Your task to perform on an android device: turn off translation in the chrome app Image 0: 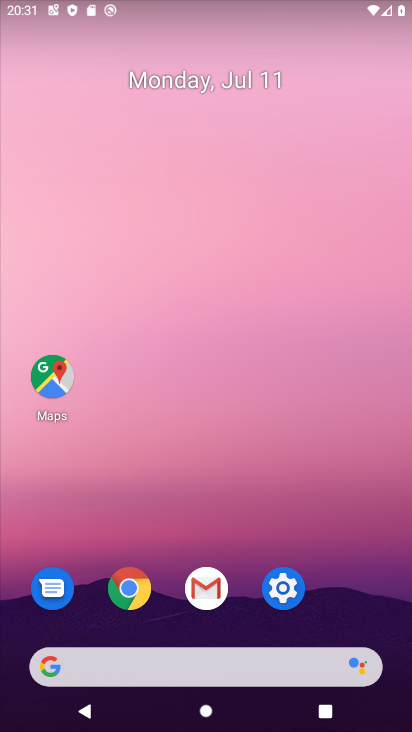
Step 0: drag from (279, 673) to (160, 173)
Your task to perform on an android device: turn off translation in the chrome app Image 1: 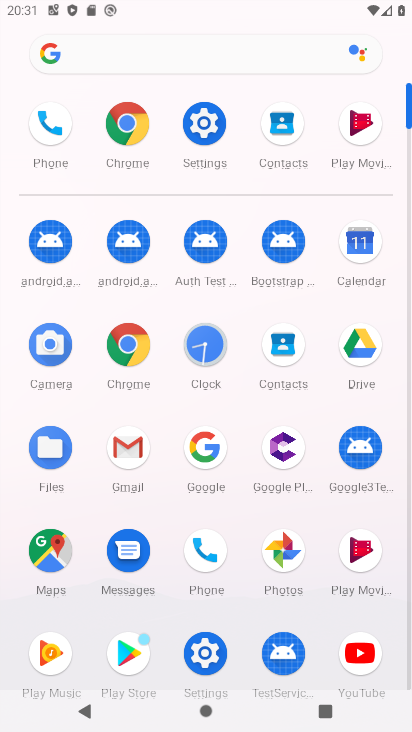
Step 1: click (140, 347)
Your task to perform on an android device: turn off translation in the chrome app Image 2: 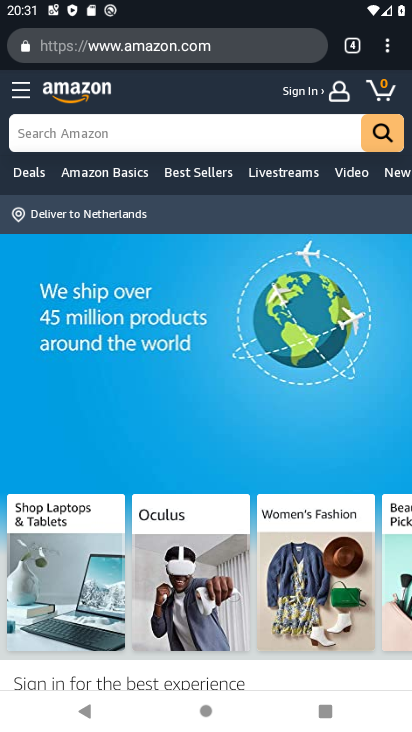
Step 2: click (387, 54)
Your task to perform on an android device: turn off translation in the chrome app Image 3: 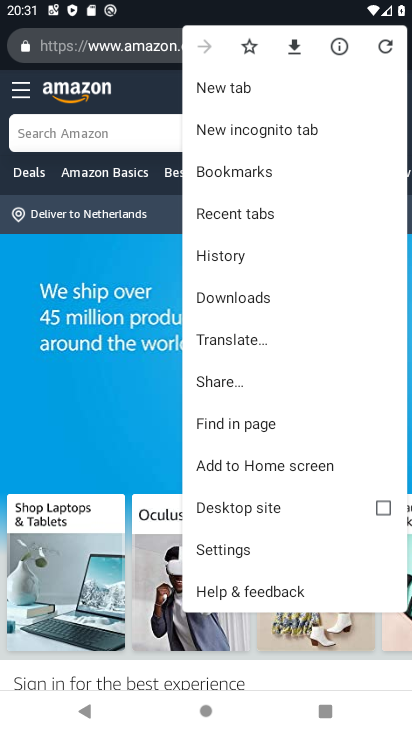
Step 3: click (215, 557)
Your task to perform on an android device: turn off translation in the chrome app Image 4: 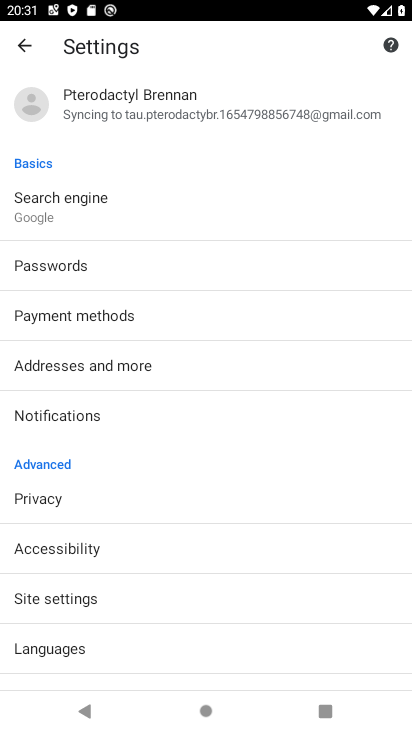
Step 4: click (62, 643)
Your task to perform on an android device: turn off translation in the chrome app Image 5: 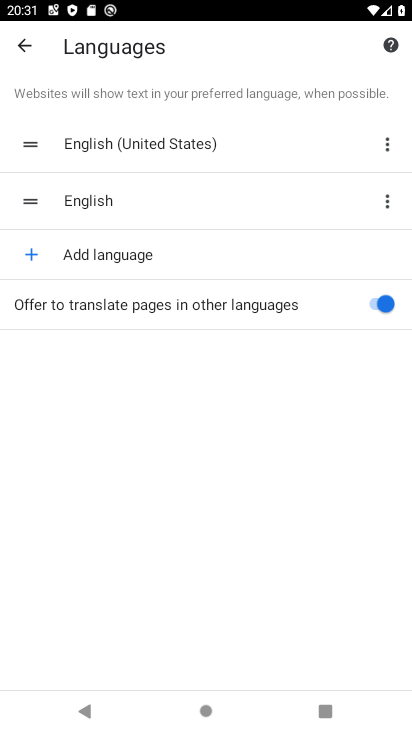
Step 5: click (384, 314)
Your task to perform on an android device: turn off translation in the chrome app Image 6: 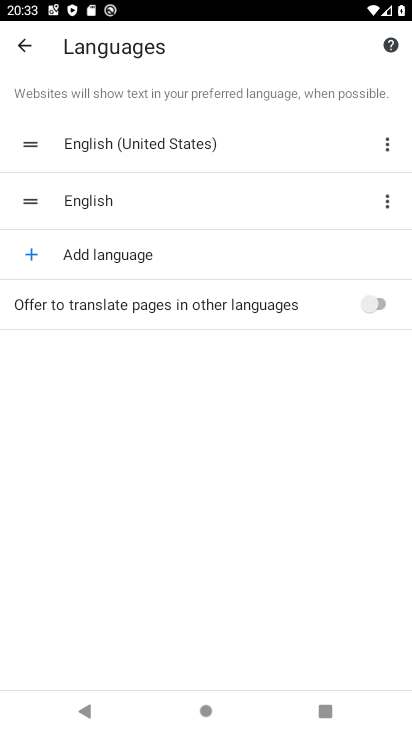
Step 6: task complete